Your task to perform on an android device: star an email in the gmail app Image 0: 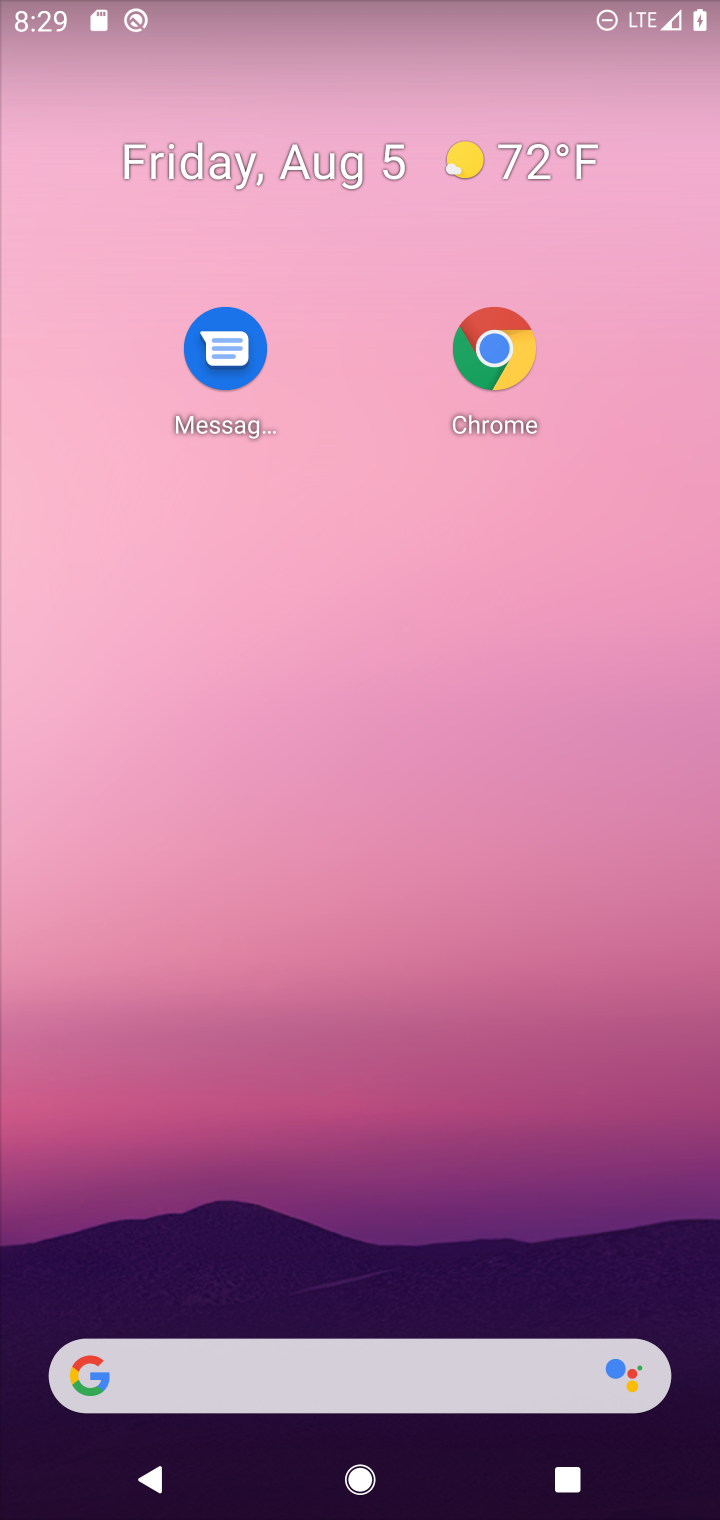
Step 0: drag from (478, 1132) to (534, 342)
Your task to perform on an android device: star an email in the gmail app Image 1: 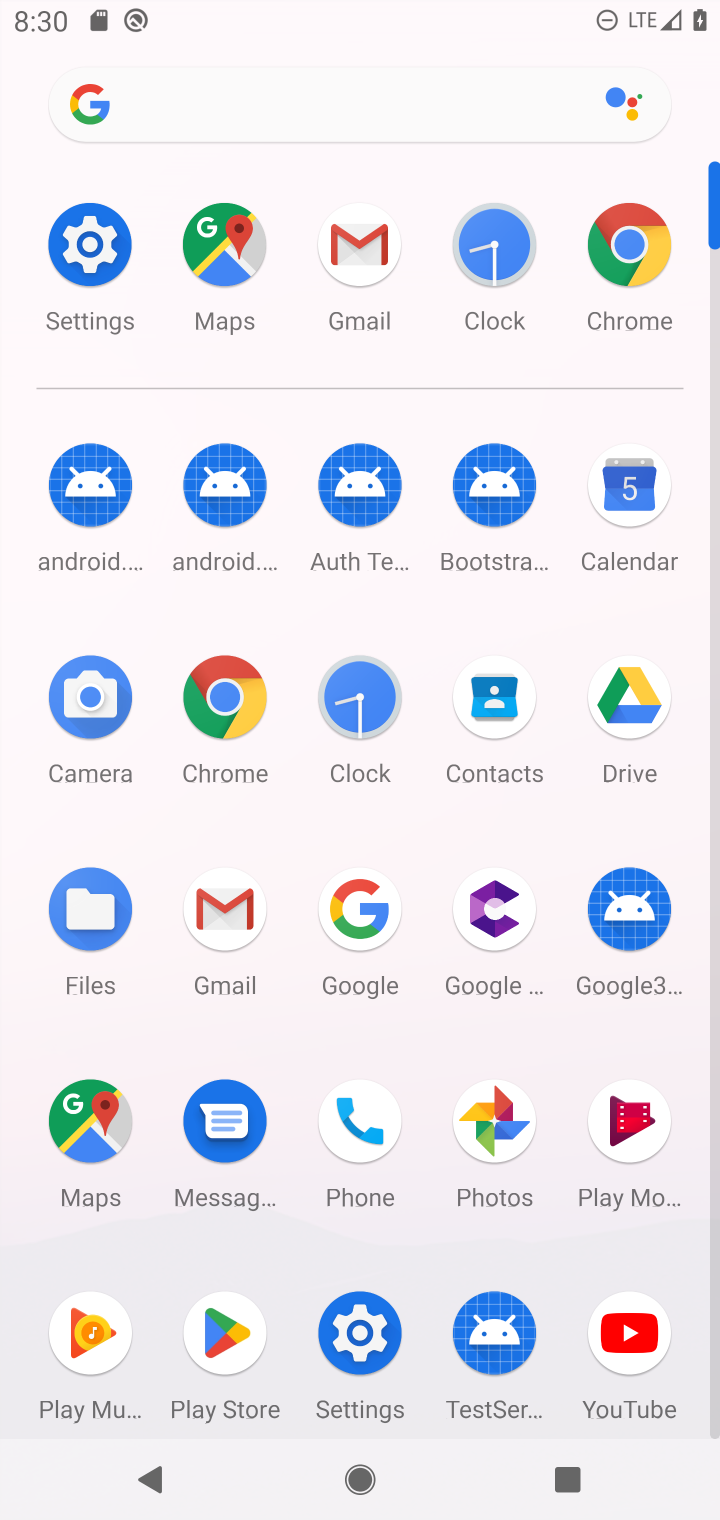
Step 1: click (351, 275)
Your task to perform on an android device: star an email in the gmail app Image 2: 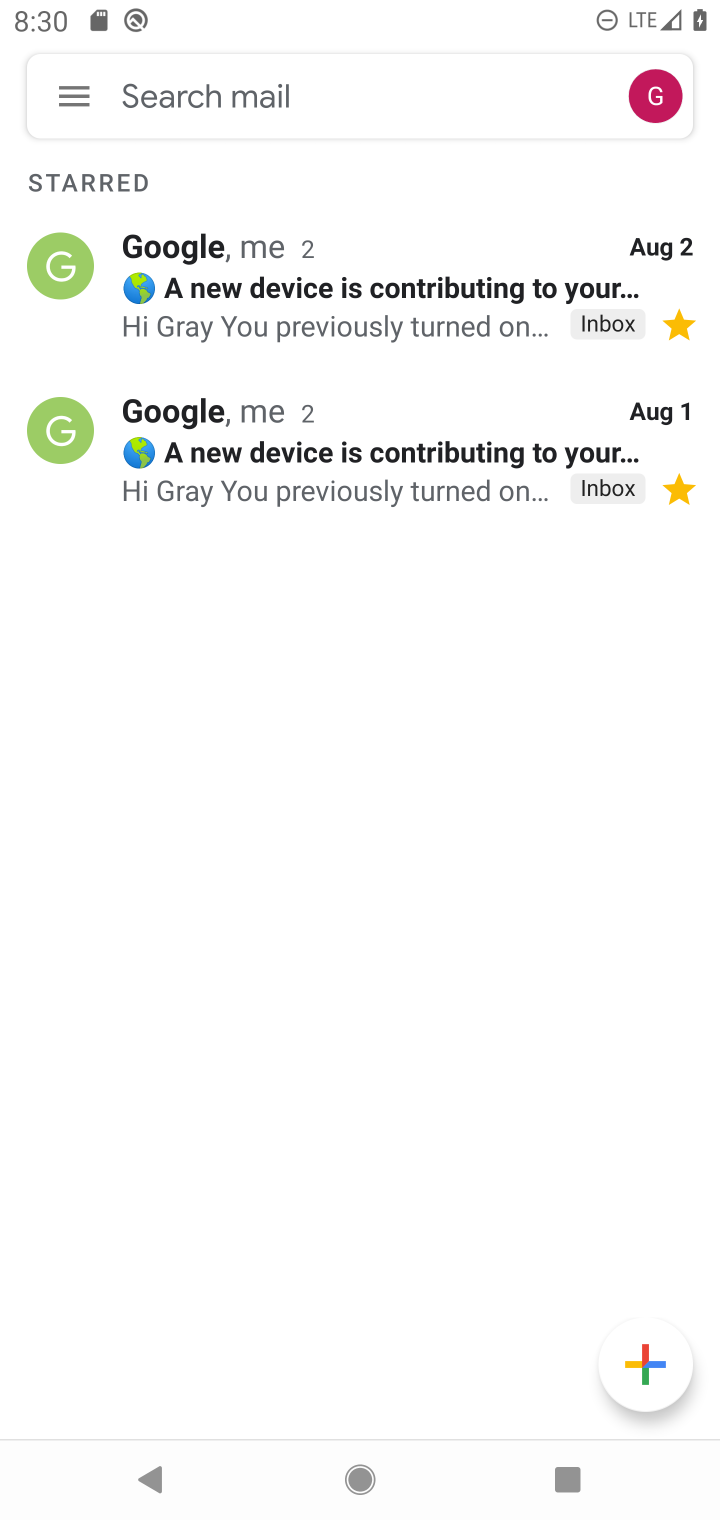
Step 2: click (67, 105)
Your task to perform on an android device: star an email in the gmail app Image 3: 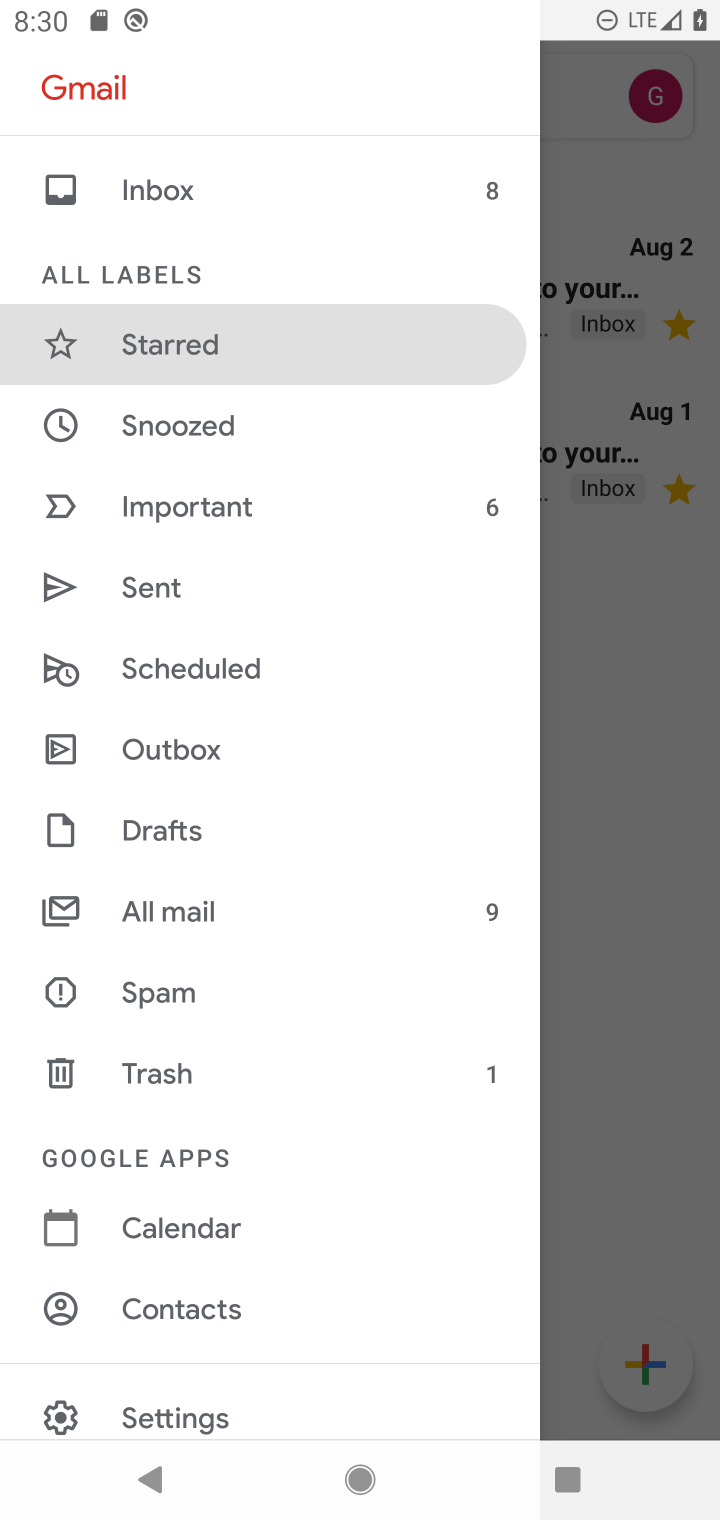
Step 3: click (640, 740)
Your task to perform on an android device: star an email in the gmail app Image 4: 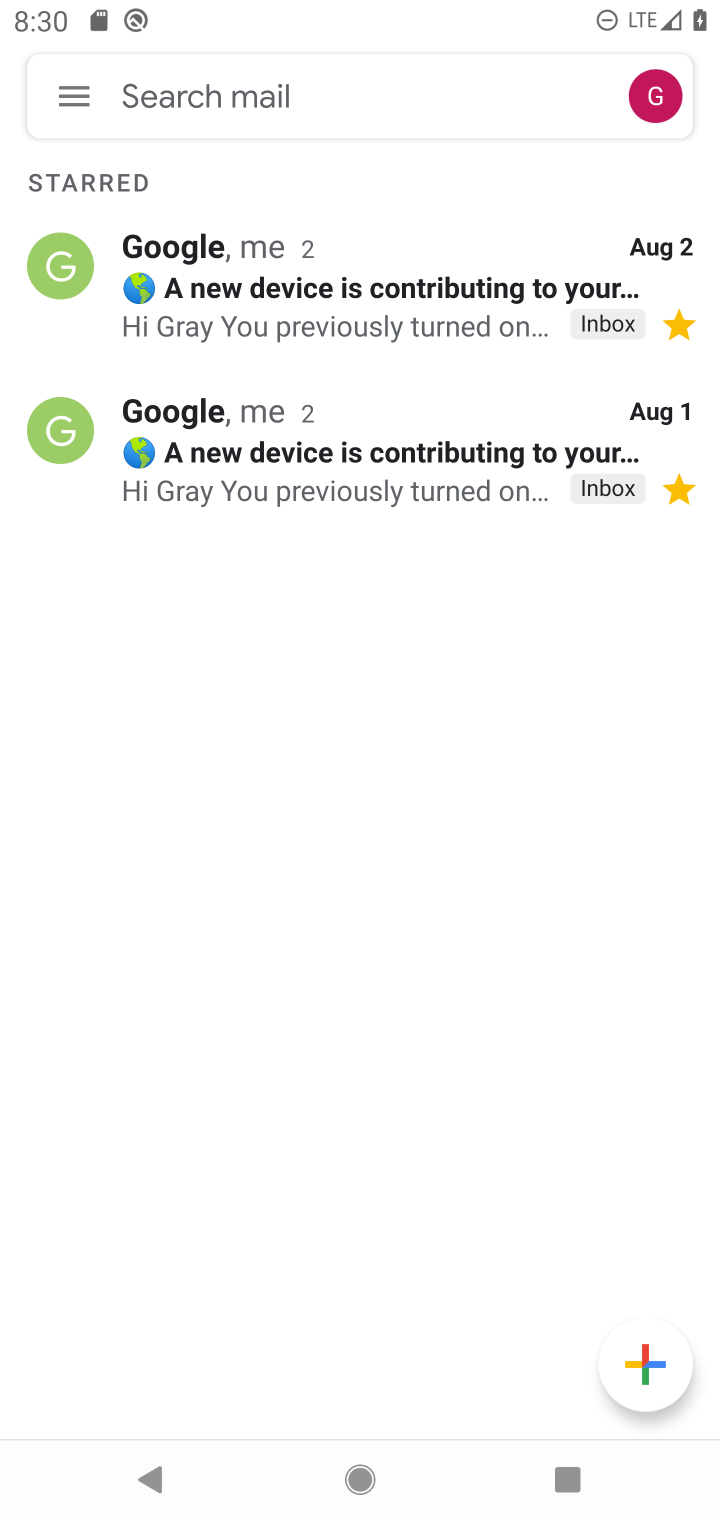
Step 4: click (447, 293)
Your task to perform on an android device: star an email in the gmail app Image 5: 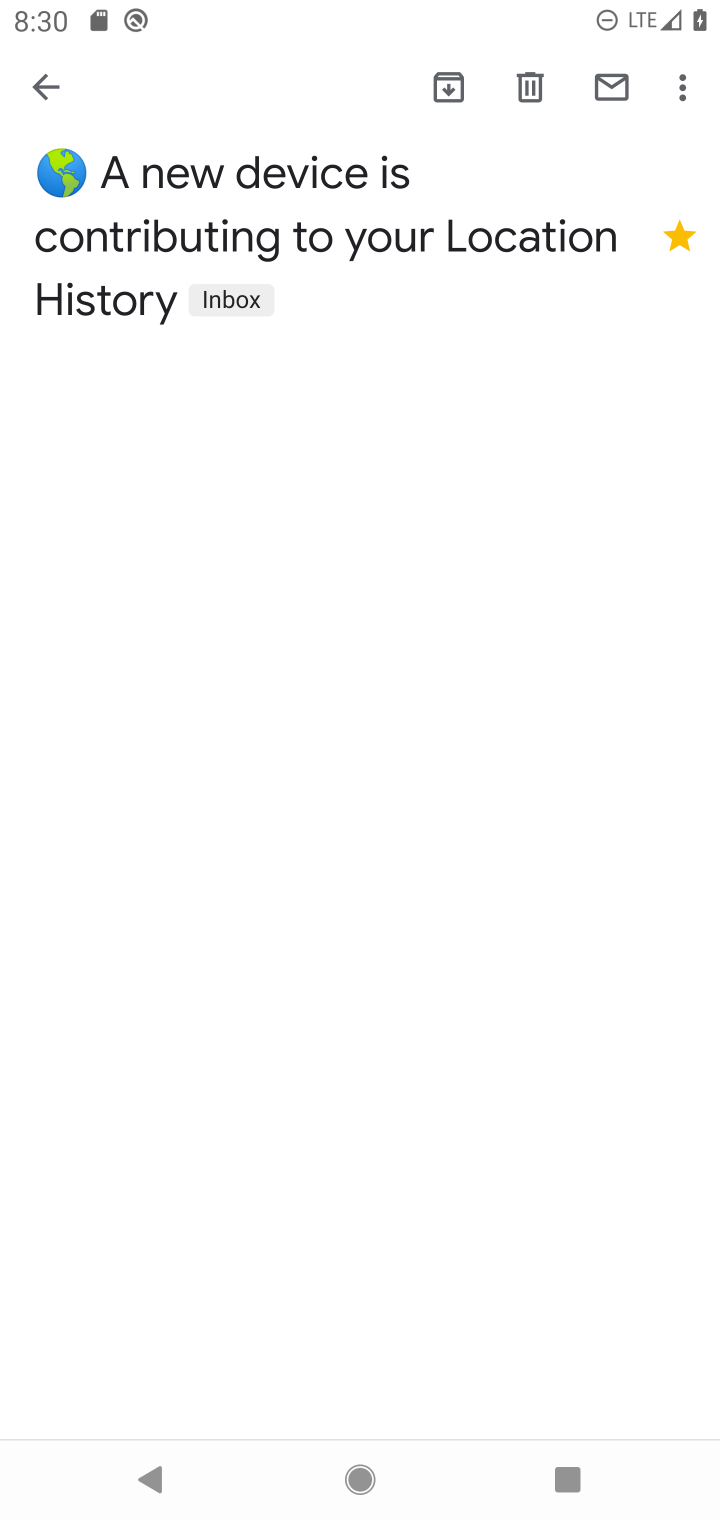
Step 5: click (671, 255)
Your task to perform on an android device: star an email in the gmail app Image 6: 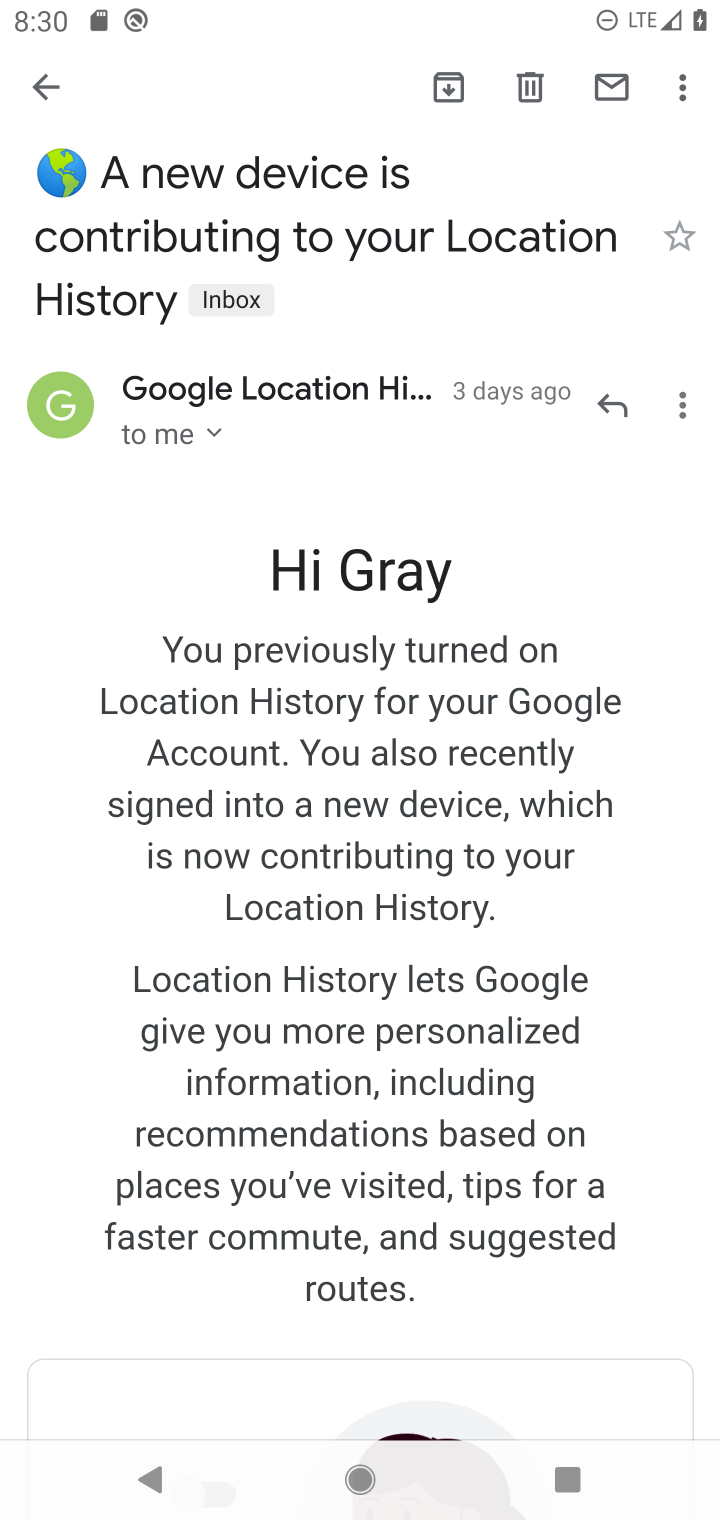
Step 6: click (661, 247)
Your task to perform on an android device: star an email in the gmail app Image 7: 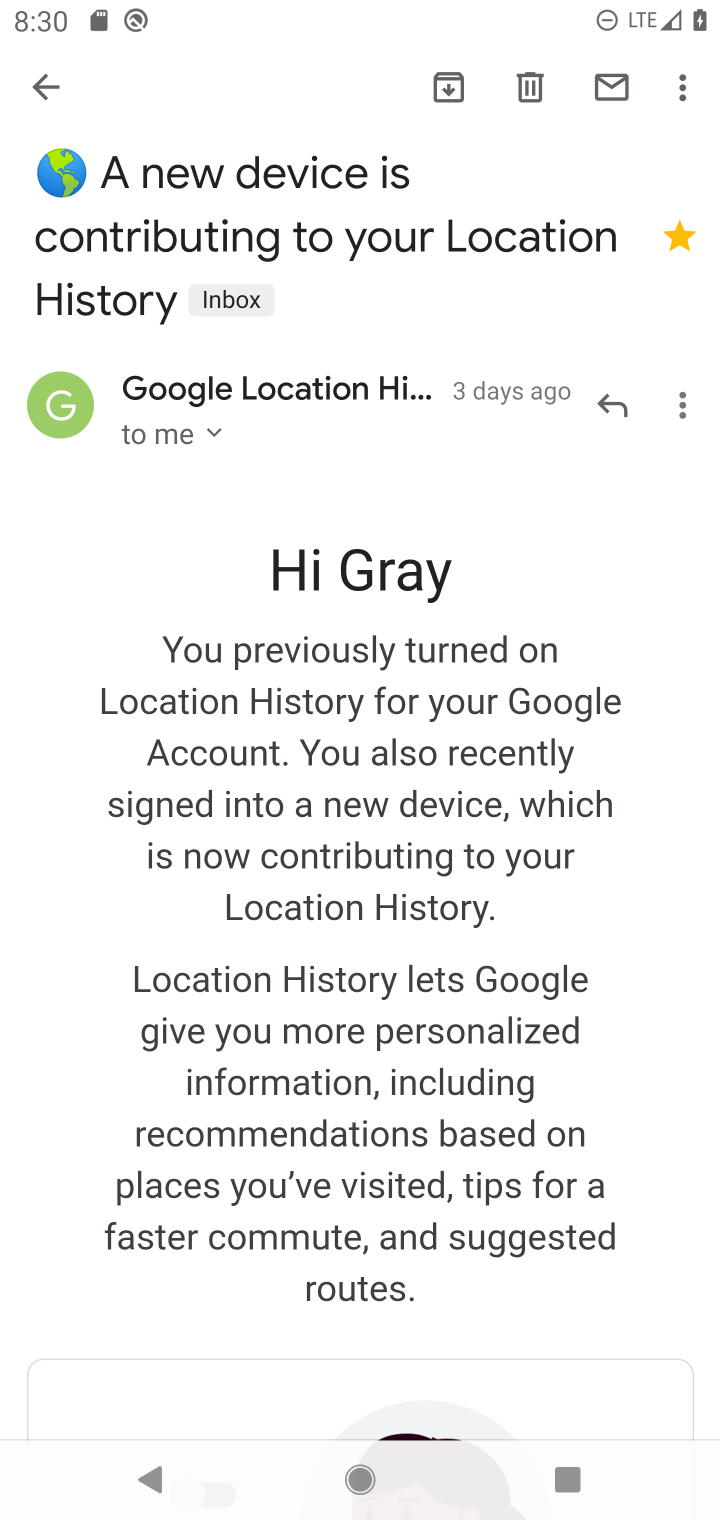
Step 7: task complete